Your task to perform on an android device: turn on notifications settings in the gmail app Image 0: 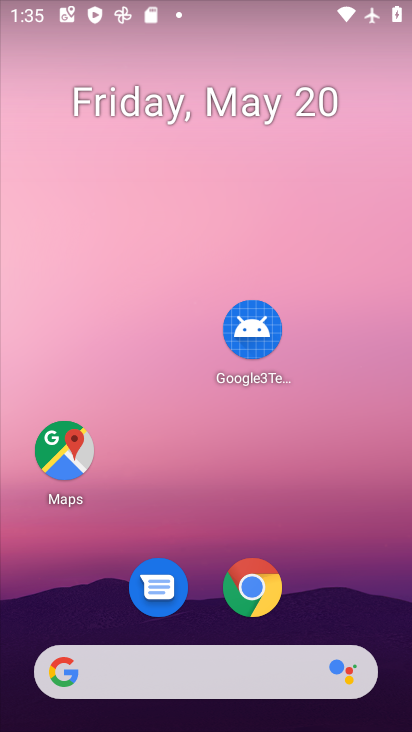
Step 0: drag from (325, 521) to (277, 46)
Your task to perform on an android device: turn on notifications settings in the gmail app Image 1: 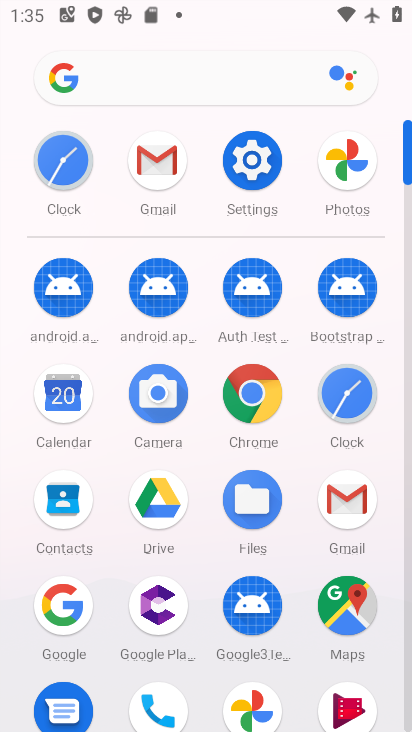
Step 1: click (157, 167)
Your task to perform on an android device: turn on notifications settings in the gmail app Image 2: 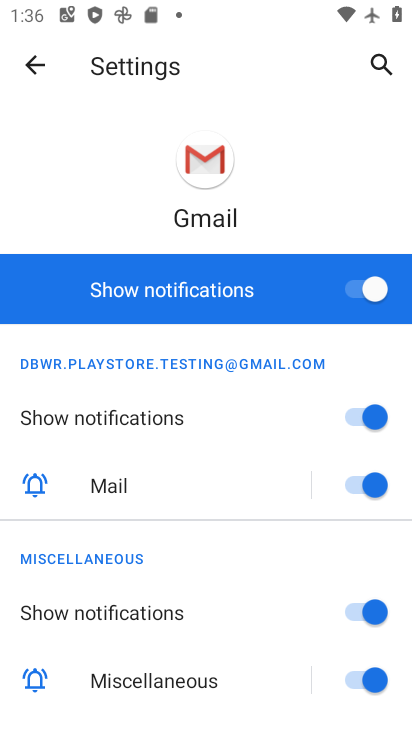
Step 2: task complete